Your task to perform on an android device: Turn off the flashlight Image 0: 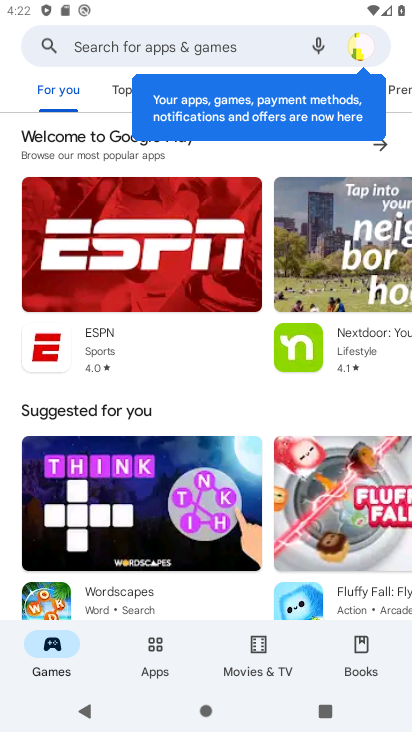
Step 0: press back button
Your task to perform on an android device: Turn off the flashlight Image 1: 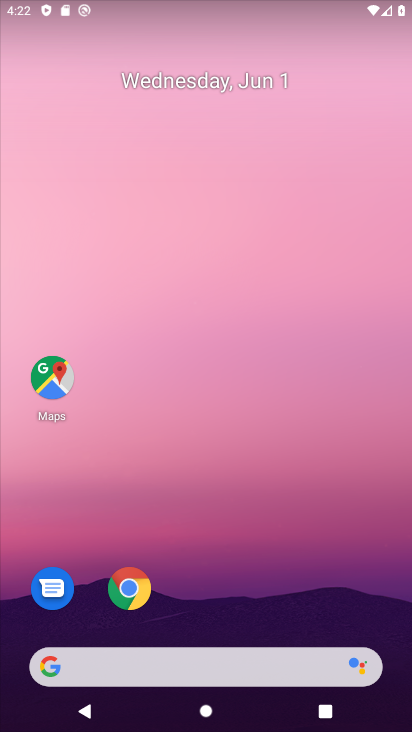
Step 1: drag from (267, 554) to (231, 179)
Your task to perform on an android device: Turn off the flashlight Image 2: 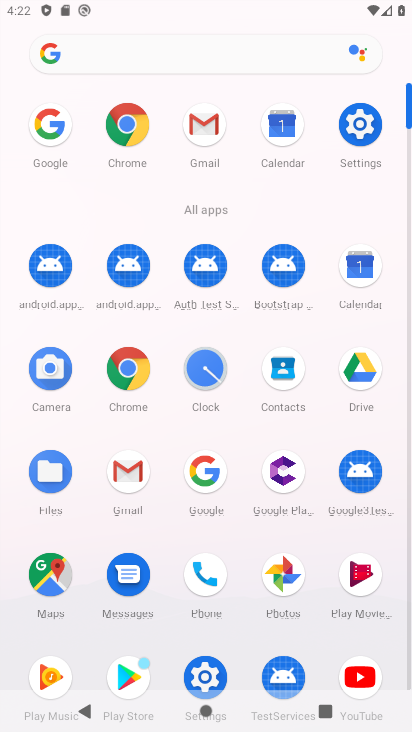
Step 2: click (362, 119)
Your task to perform on an android device: Turn off the flashlight Image 3: 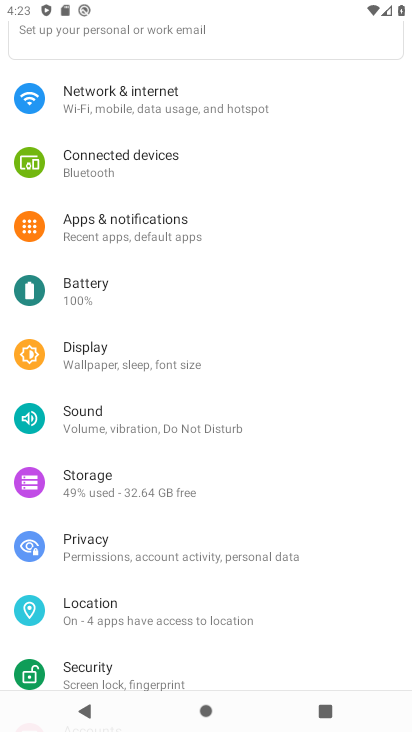
Step 3: click (170, 380)
Your task to perform on an android device: Turn off the flashlight Image 4: 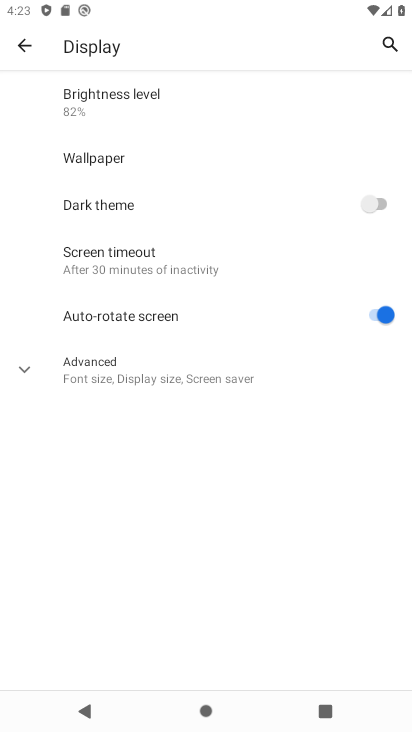
Step 4: click (130, 276)
Your task to perform on an android device: Turn off the flashlight Image 5: 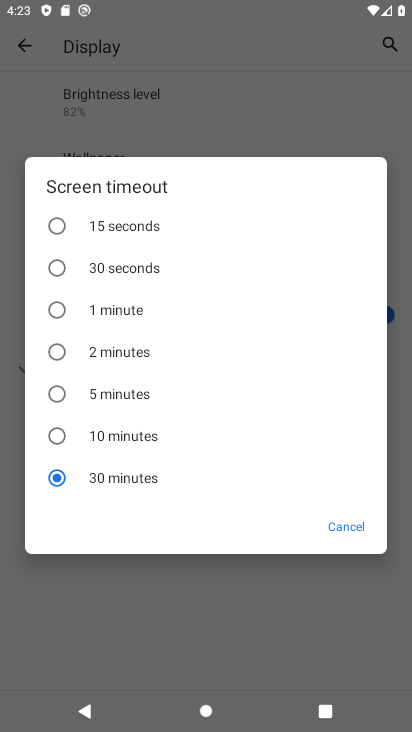
Step 5: drag from (113, 445) to (177, 325)
Your task to perform on an android device: Turn off the flashlight Image 6: 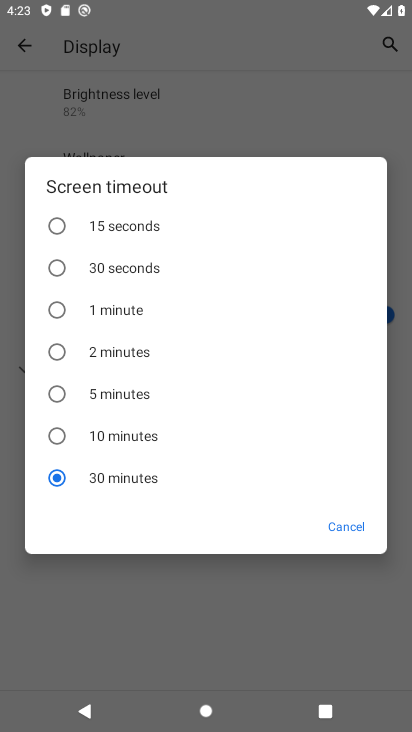
Step 6: click (353, 529)
Your task to perform on an android device: Turn off the flashlight Image 7: 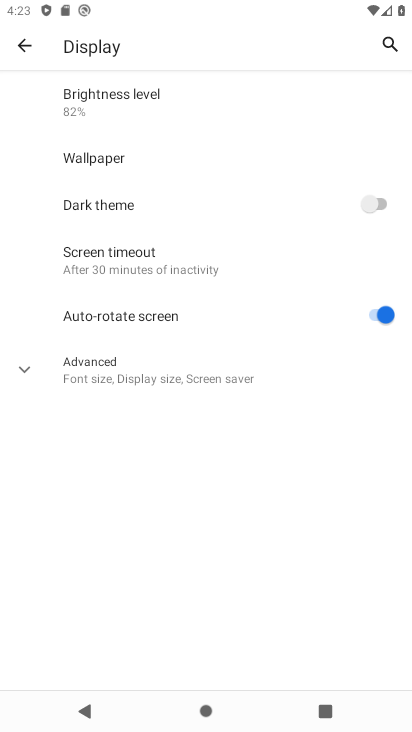
Step 7: click (168, 377)
Your task to perform on an android device: Turn off the flashlight Image 8: 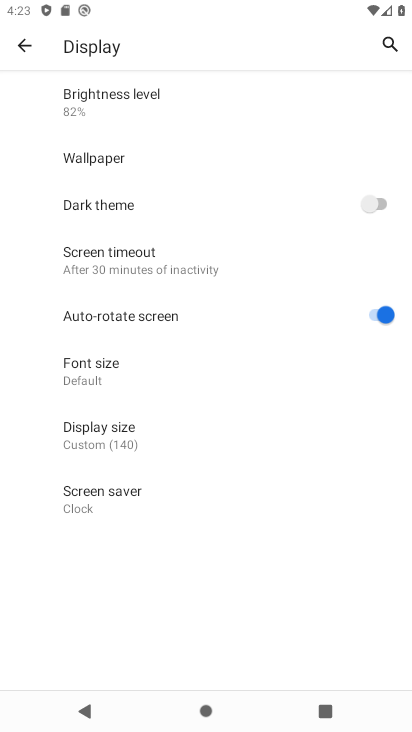
Step 8: click (93, 494)
Your task to perform on an android device: Turn off the flashlight Image 9: 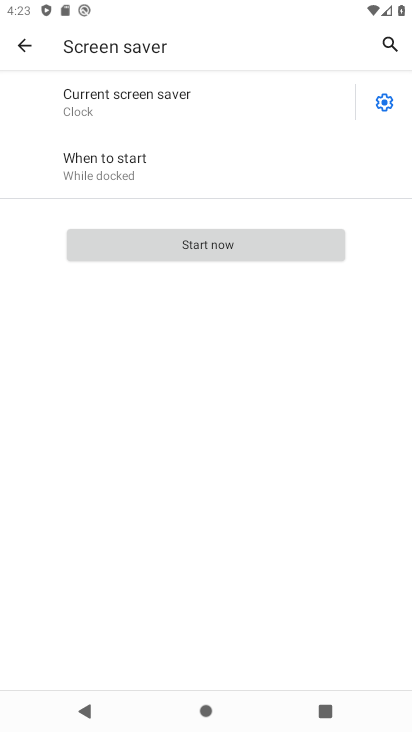
Step 9: click (388, 97)
Your task to perform on an android device: Turn off the flashlight Image 10: 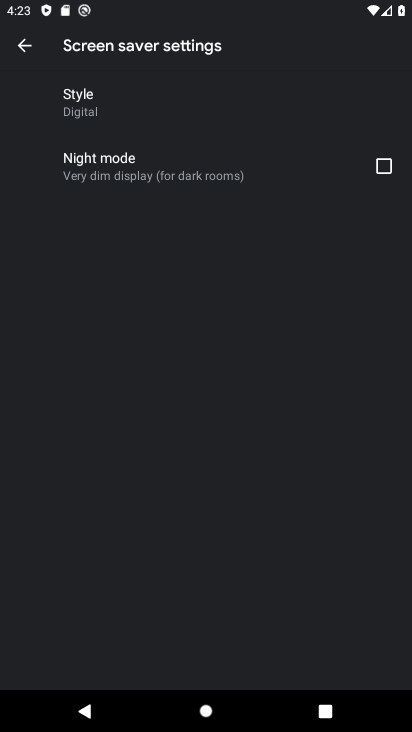
Step 10: task complete